Your task to perform on an android device: Open Youtube and go to the subscriptions tab Image 0: 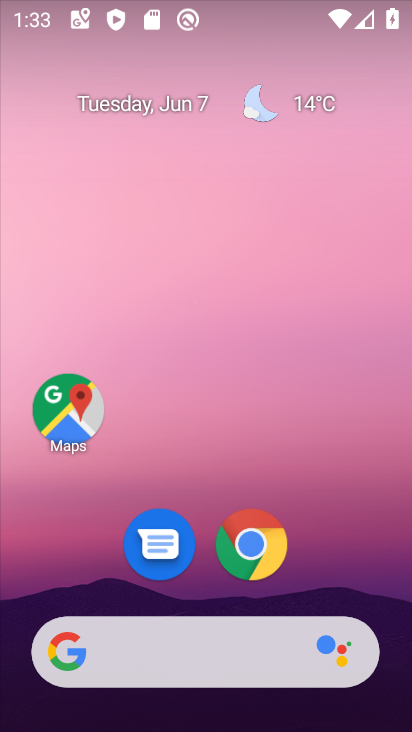
Step 0: drag from (382, 573) to (291, 175)
Your task to perform on an android device: Open Youtube and go to the subscriptions tab Image 1: 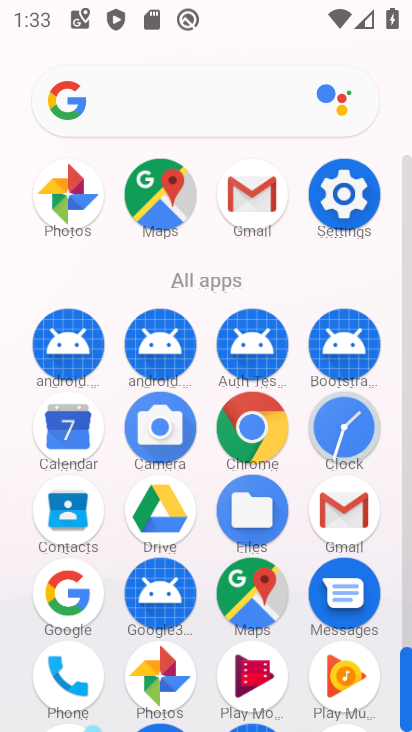
Step 1: drag from (399, 618) to (380, 394)
Your task to perform on an android device: Open Youtube and go to the subscriptions tab Image 2: 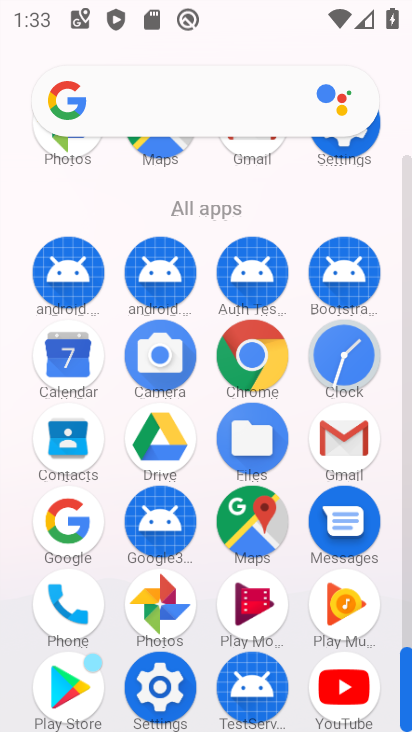
Step 2: click (351, 683)
Your task to perform on an android device: Open Youtube and go to the subscriptions tab Image 3: 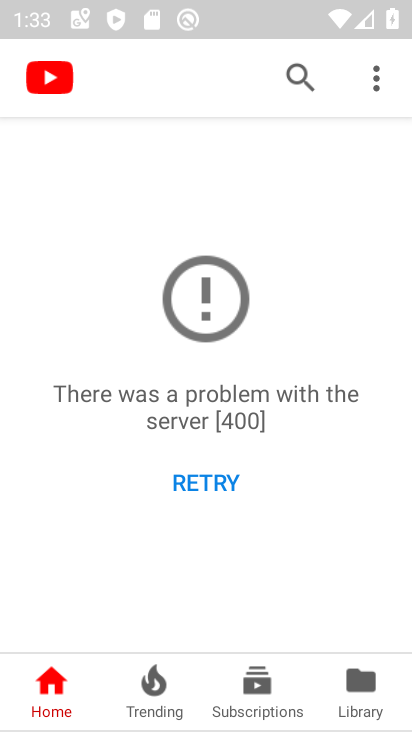
Step 3: click (270, 697)
Your task to perform on an android device: Open Youtube and go to the subscriptions tab Image 4: 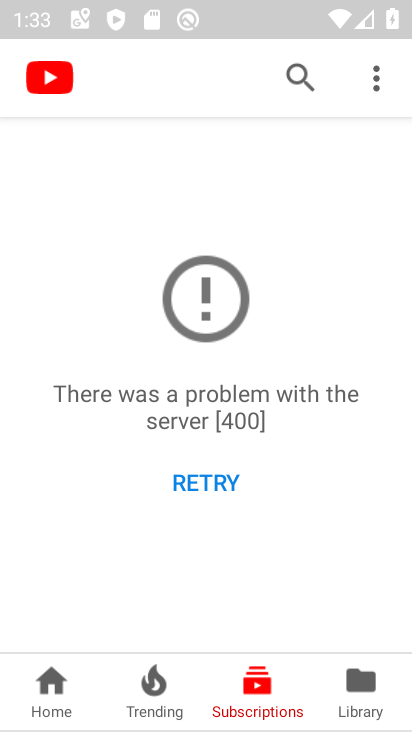
Step 4: task complete